Your task to perform on an android device: find photos in the google photos app Image 0: 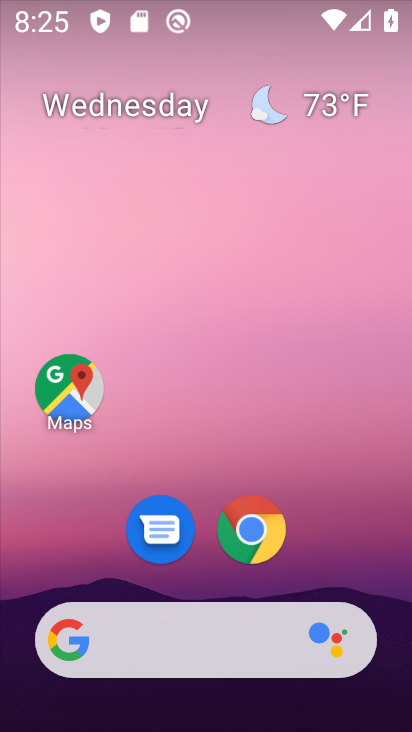
Step 0: drag from (385, 541) to (381, 259)
Your task to perform on an android device: find photos in the google photos app Image 1: 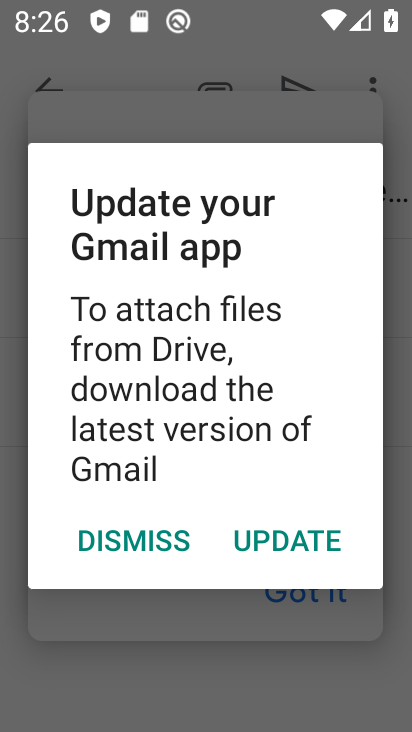
Step 1: press home button
Your task to perform on an android device: find photos in the google photos app Image 2: 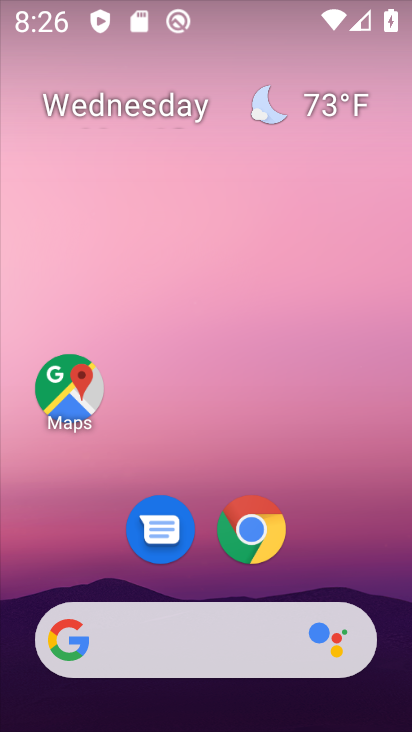
Step 2: drag from (359, 569) to (327, 140)
Your task to perform on an android device: find photos in the google photos app Image 3: 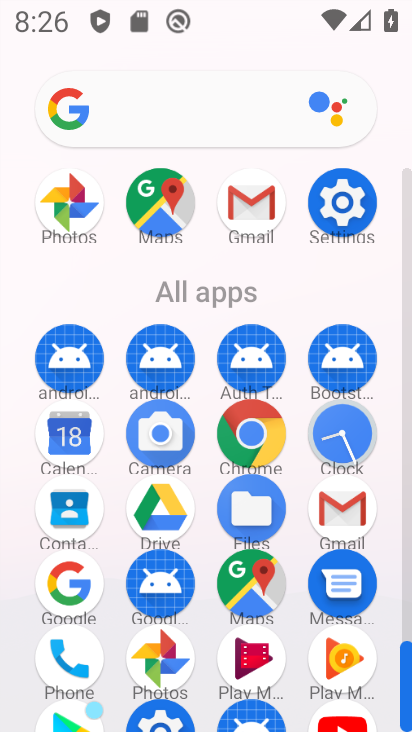
Step 3: click (58, 205)
Your task to perform on an android device: find photos in the google photos app Image 4: 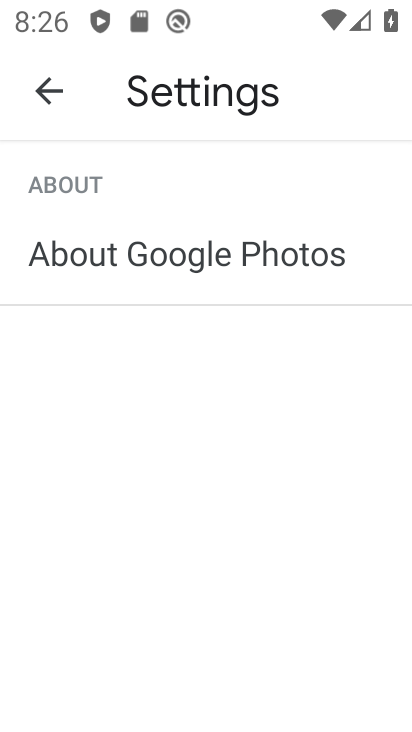
Step 4: click (51, 93)
Your task to perform on an android device: find photos in the google photos app Image 5: 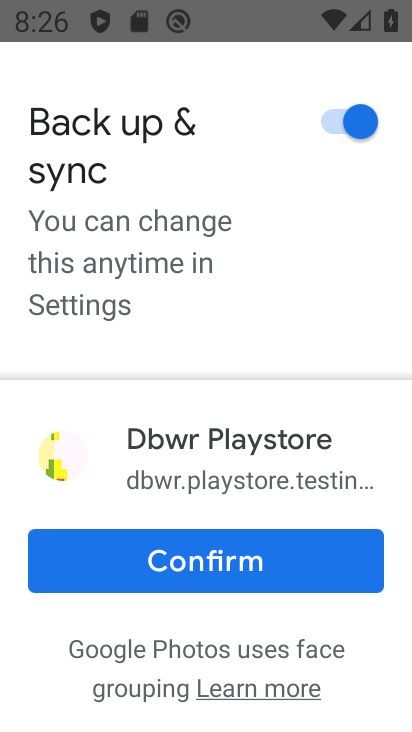
Step 5: click (201, 561)
Your task to perform on an android device: find photos in the google photos app Image 6: 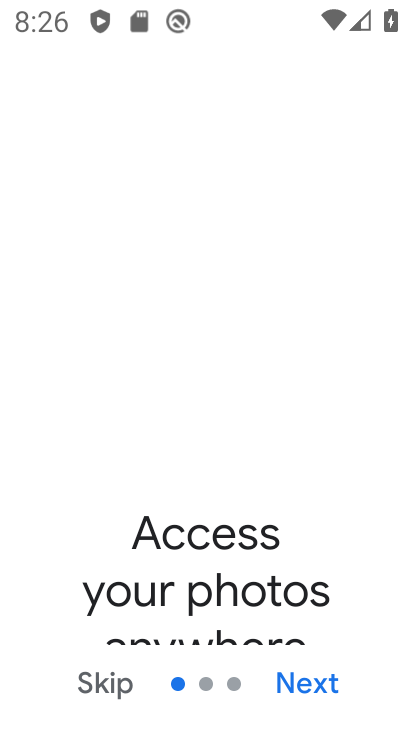
Step 6: click (338, 676)
Your task to perform on an android device: find photos in the google photos app Image 7: 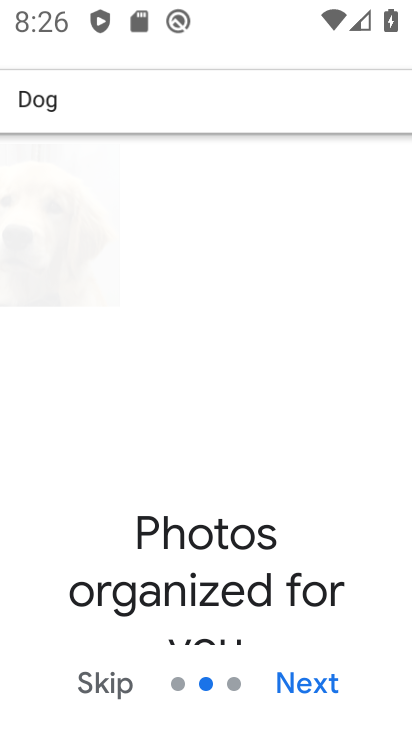
Step 7: click (337, 677)
Your task to perform on an android device: find photos in the google photos app Image 8: 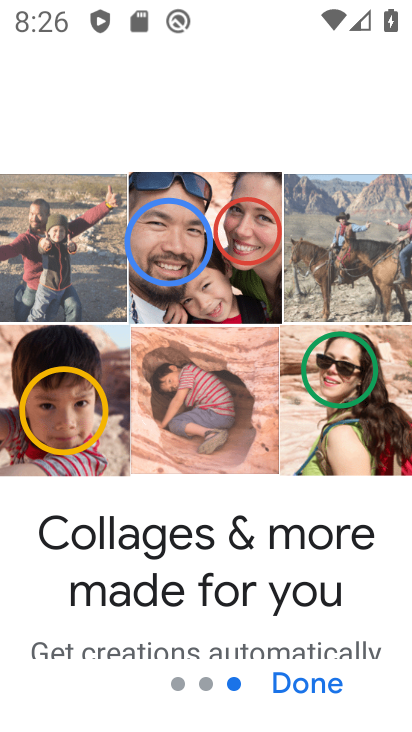
Step 8: click (334, 687)
Your task to perform on an android device: find photos in the google photos app Image 9: 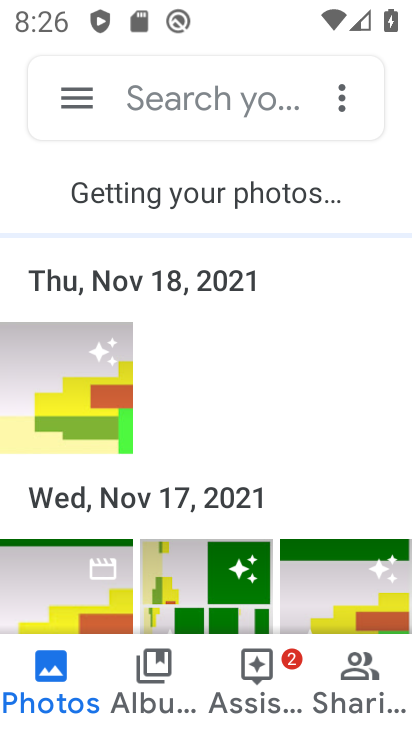
Step 9: click (97, 415)
Your task to perform on an android device: find photos in the google photos app Image 10: 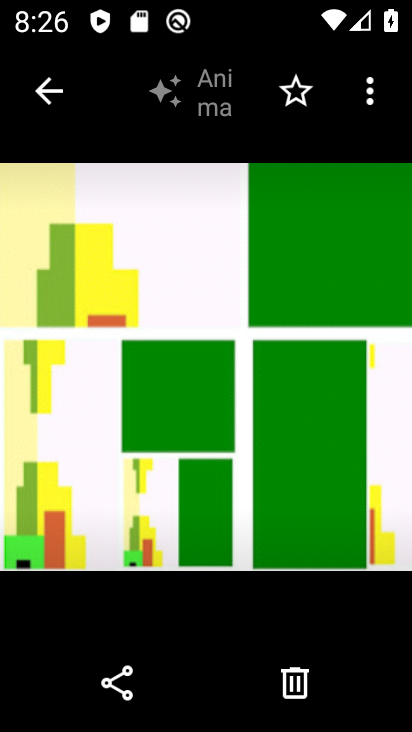
Step 10: task complete